Your task to perform on an android device: toggle wifi Image 0: 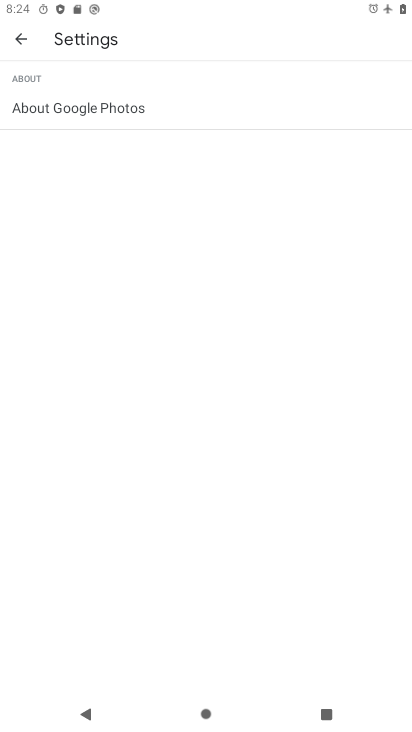
Step 0: press back button
Your task to perform on an android device: toggle wifi Image 1: 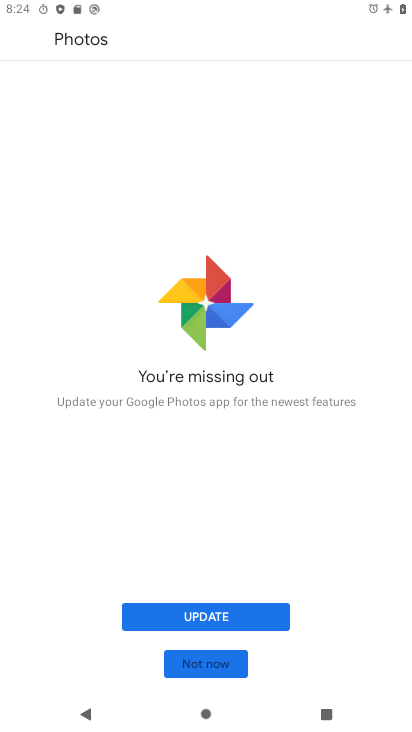
Step 1: press back button
Your task to perform on an android device: toggle wifi Image 2: 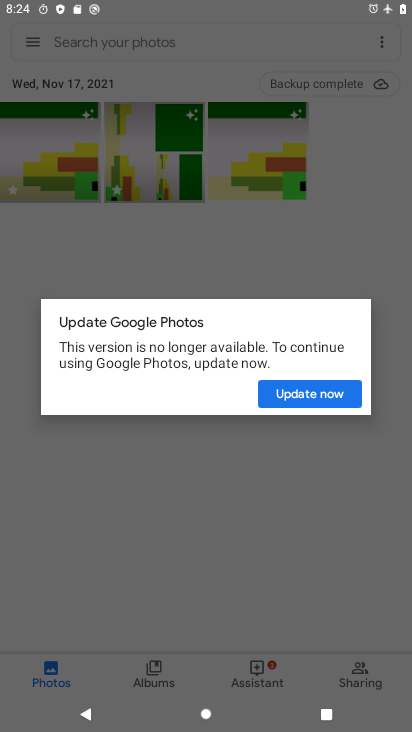
Step 2: press back button
Your task to perform on an android device: toggle wifi Image 3: 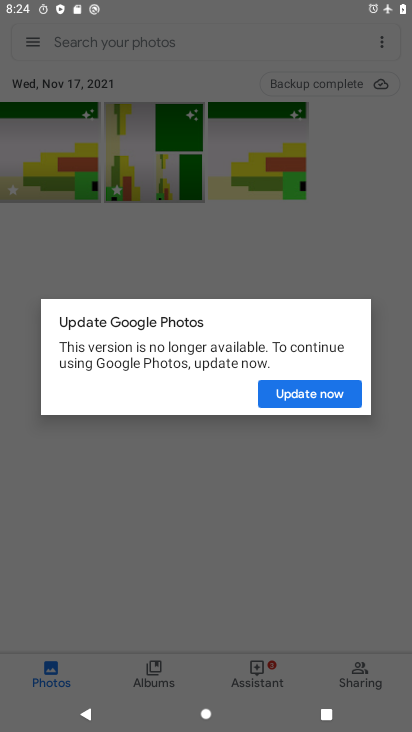
Step 3: press home button
Your task to perform on an android device: toggle wifi Image 4: 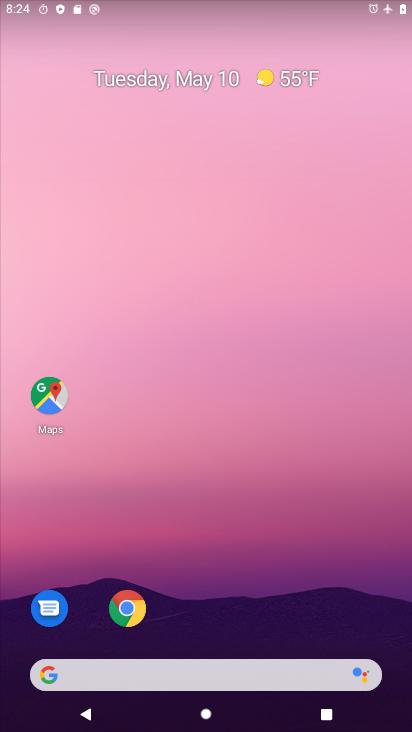
Step 4: drag from (246, 571) to (186, 143)
Your task to perform on an android device: toggle wifi Image 5: 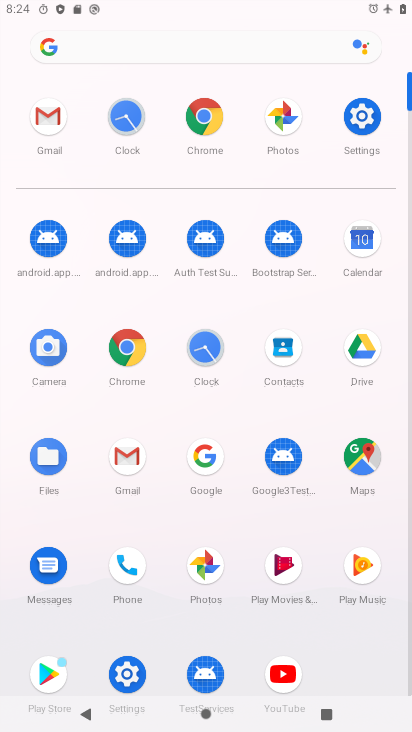
Step 5: click (363, 117)
Your task to perform on an android device: toggle wifi Image 6: 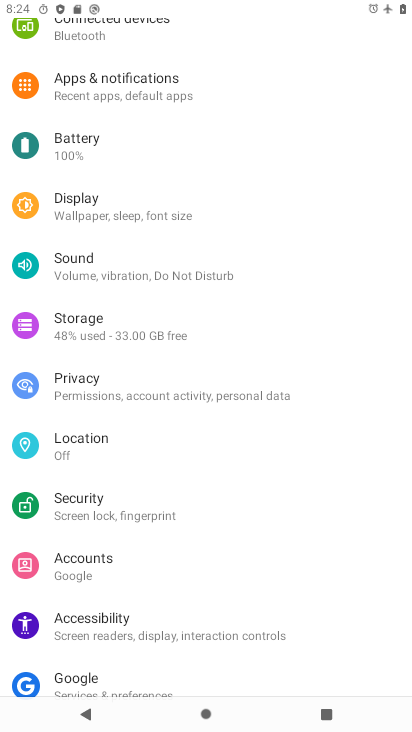
Step 6: drag from (171, 173) to (167, 304)
Your task to perform on an android device: toggle wifi Image 7: 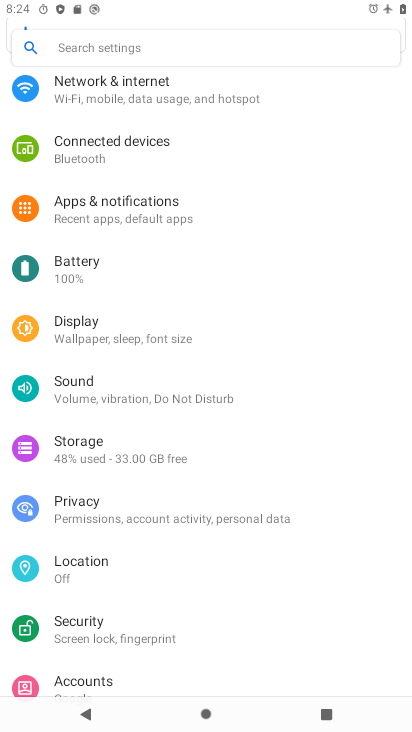
Step 7: drag from (181, 165) to (203, 274)
Your task to perform on an android device: toggle wifi Image 8: 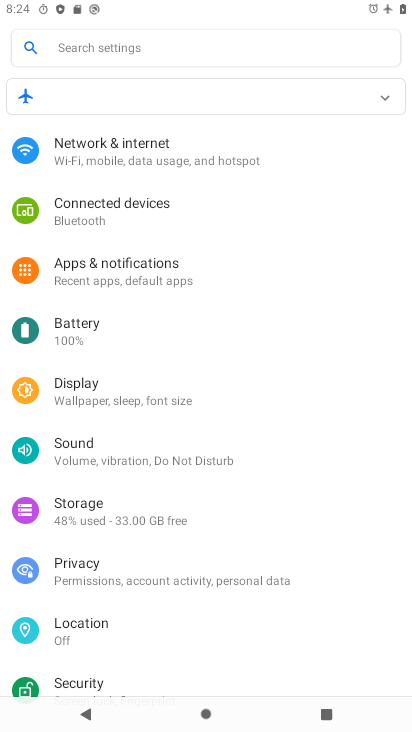
Step 8: click (129, 153)
Your task to perform on an android device: toggle wifi Image 9: 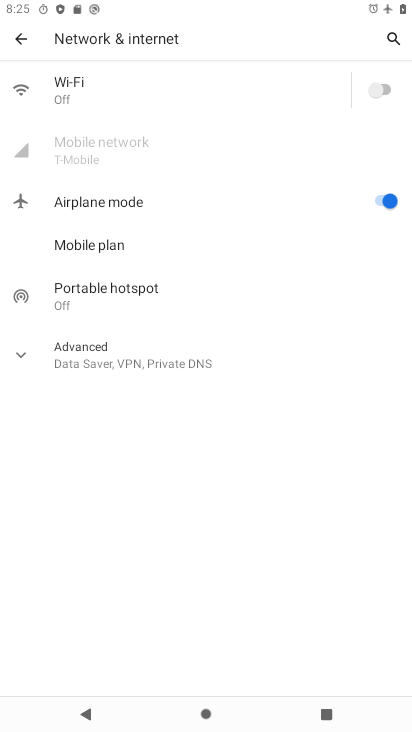
Step 9: click (375, 89)
Your task to perform on an android device: toggle wifi Image 10: 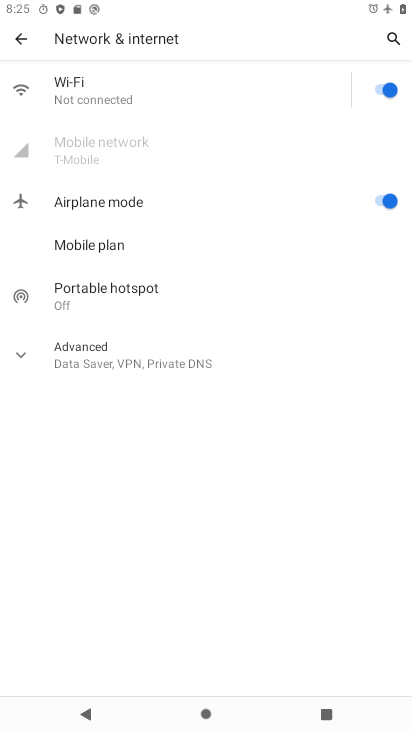
Step 10: task complete